Your task to perform on an android device: What's the weather going to be tomorrow? Image 0: 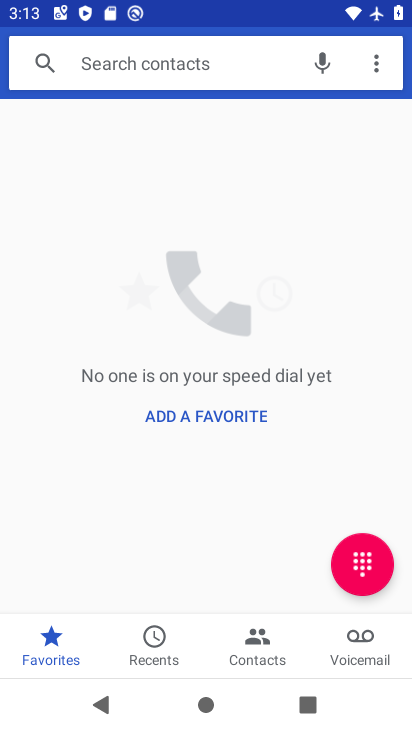
Step 0: press home button
Your task to perform on an android device: What's the weather going to be tomorrow? Image 1: 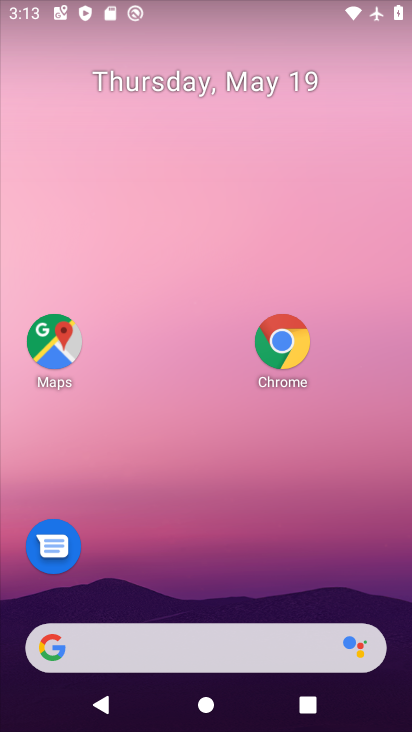
Step 1: click (59, 651)
Your task to perform on an android device: What's the weather going to be tomorrow? Image 2: 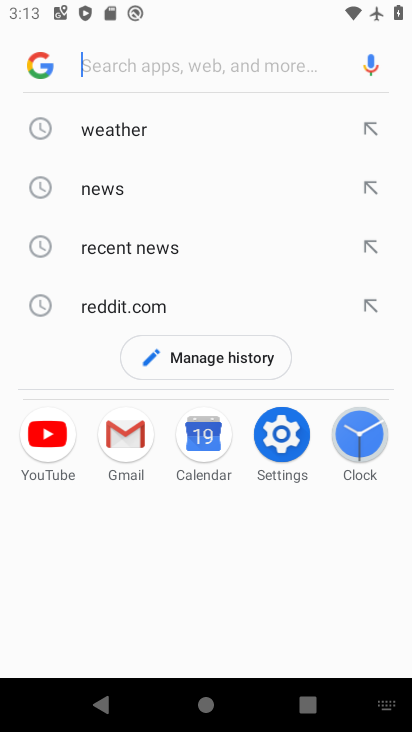
Step 2: click (130, 129)
Your task to perform on an android device: What's the weather going to be tomorrow? Image 3: 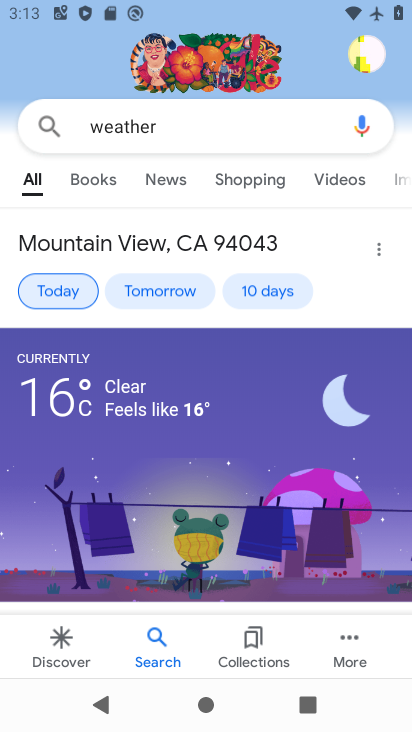
Step 3: click (166, 295)
Your task to perform on an android device: What's the weather going to be tomorrow? Image 4: 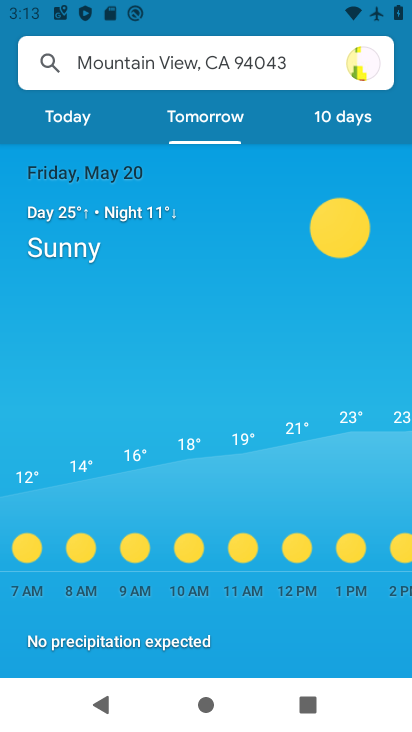
Step 4: task complete